Your task to perform on an android device: toggle wifi Image 0: 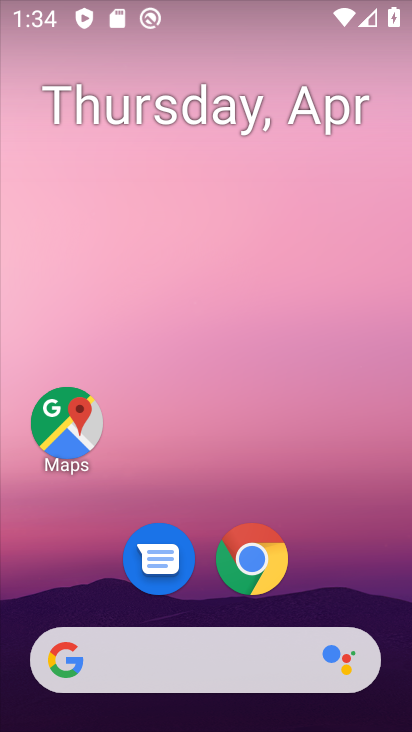
Step 0: drag from (317, 572) to (246, 133)
Your task to perform on an android device: toggle wifi Image 1: 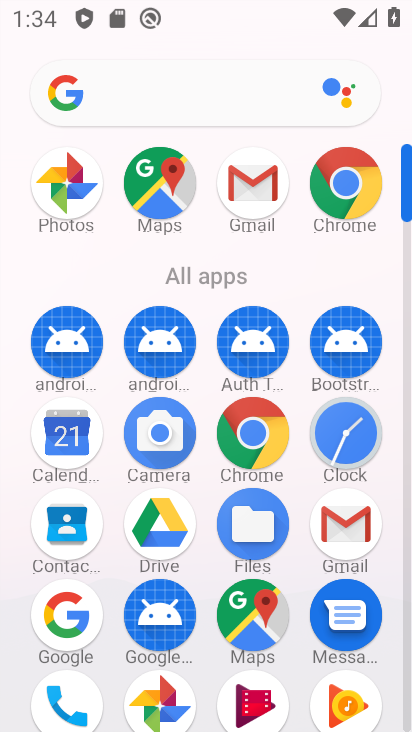
Step 1: drag from (193, 573) to (175, 168)
Your task to perform on an android device: toggle wifi Image 2: 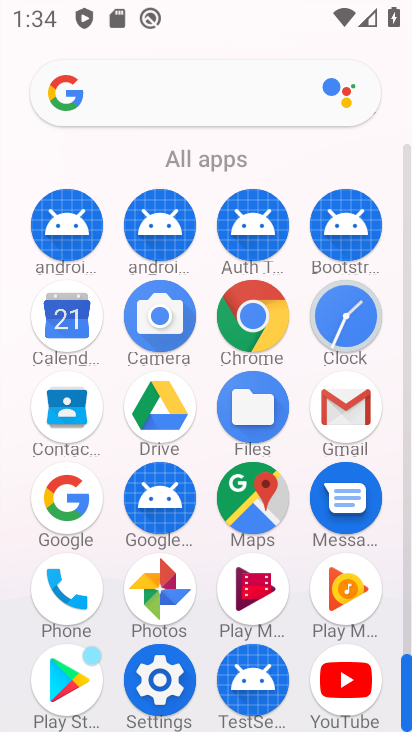
Step 2: drag from (154, 660) to (71, 304)
Your task to perform on an android device: toggle wifi Image 3: 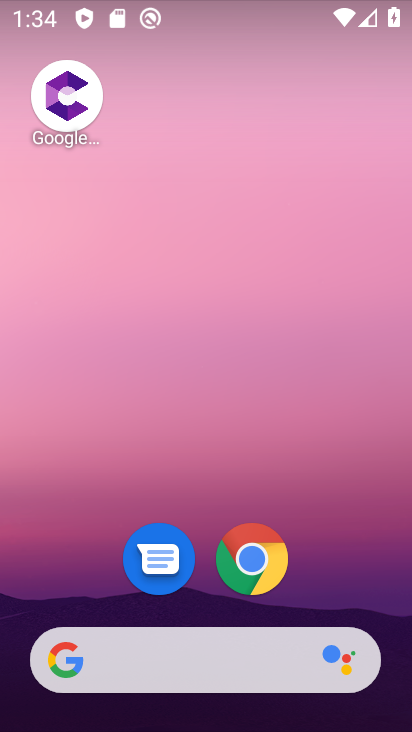
Step 3: drag from (48, 343) to (402, 314)
Your task to perform on an android device: toggle wifi Image 4: 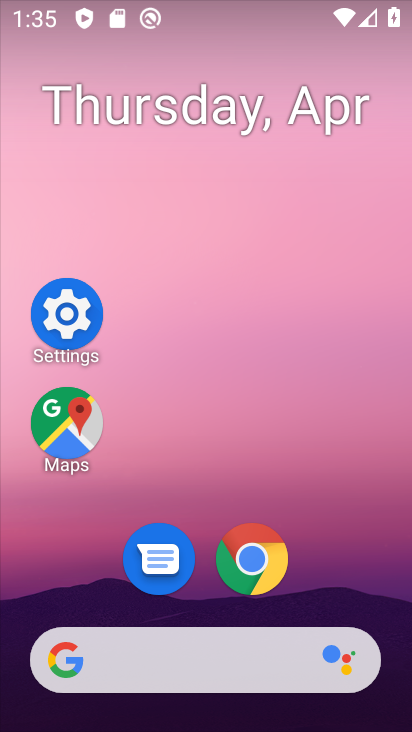
Step 4: click (70, 303)
Your task to perform on an android device: toggle wifi Image 5: 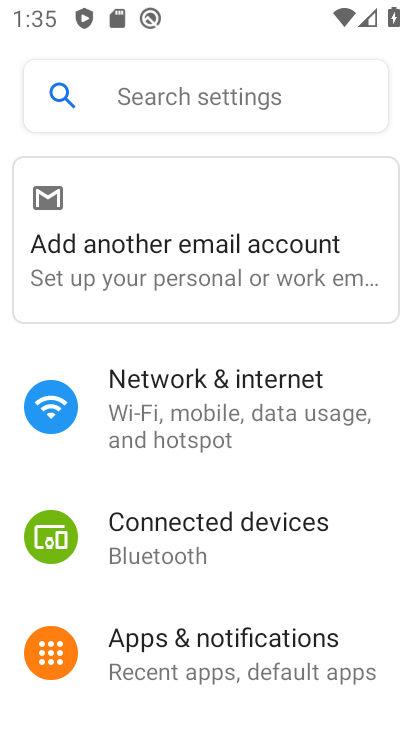
Step 5: click (262, 403)
Your task to perform on an android device: toggle wifi Image 6: 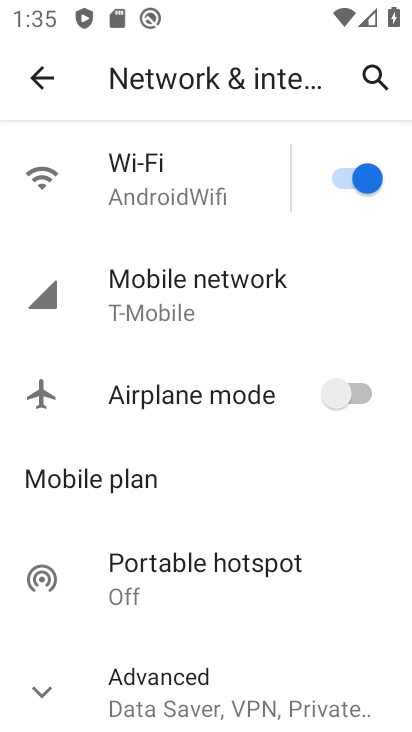
Step 6: click (359, 171)
Your task to perform on an android device: toggle wifi Image 7: 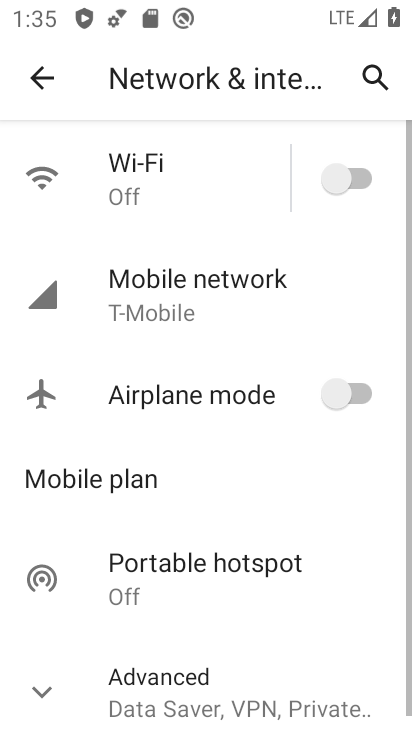
Step 7: task complete